Your task to perform on an android device: Find coffee shops on Maps Image 0: 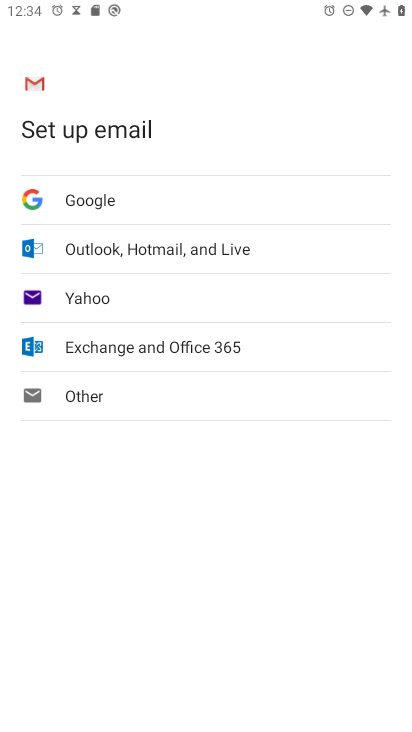
Step 0: press home button
Your task to perform on an android device: Find coffee shops on Maps Image 1: 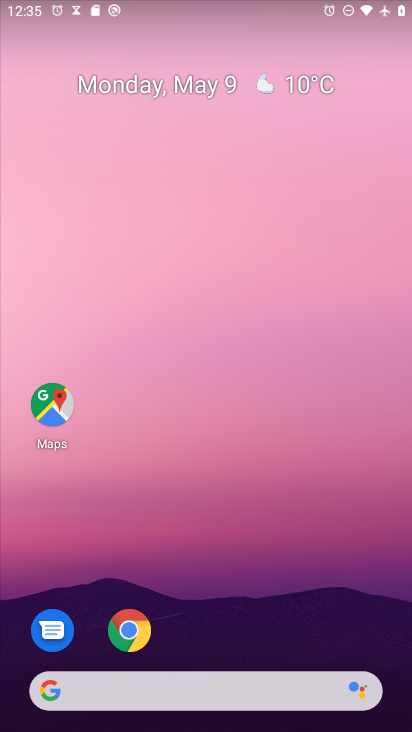
Step 1: drag from (176, 697) to (378, 156)
Your task to perform on an android device: Find coffee shops on Maps Image 2: 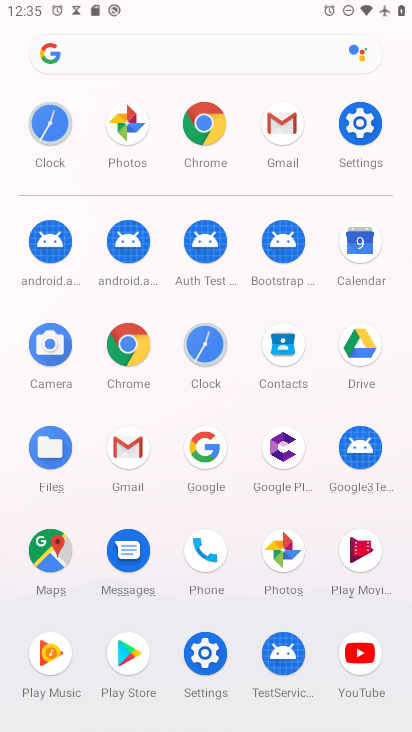
Step 2: click (48, 550)
Your task to perform on an android device: Find coffee shops on Maps Image 3: 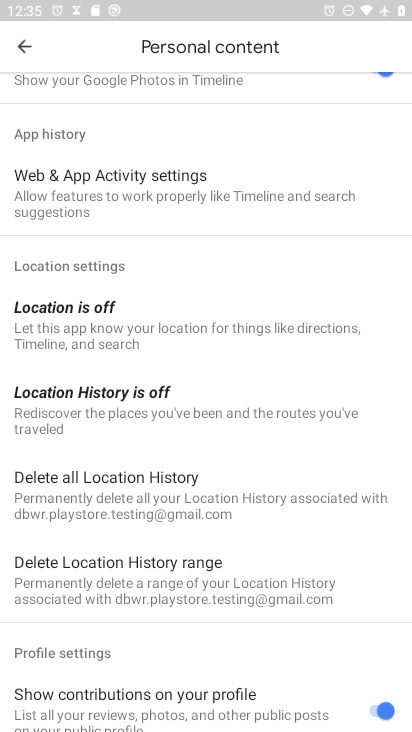
Step 3: click (29, 48)
Your task to perform on an android device: Find coffee shops on Maps Image 4: 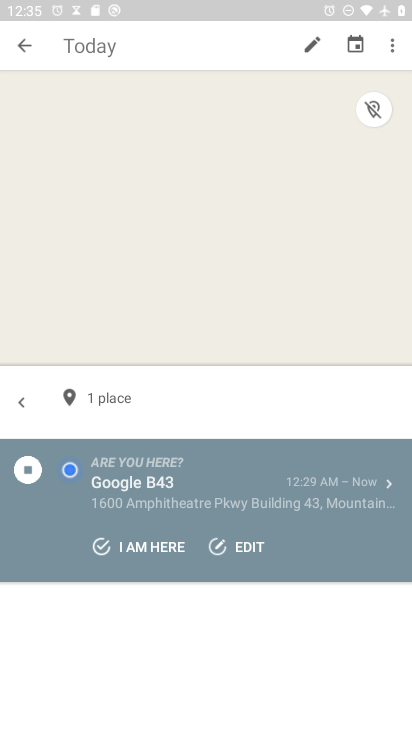
Step 4: click (29, 48)
Your task to perform on an android device: Find coffee shops on Maps Image 5: 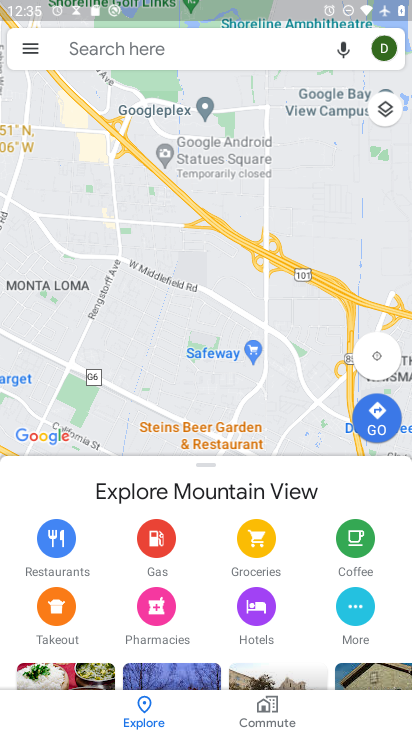
Step 5: click (147, 43)
Your task to perform on an android device: Find coffee shops on Maps Image 6: 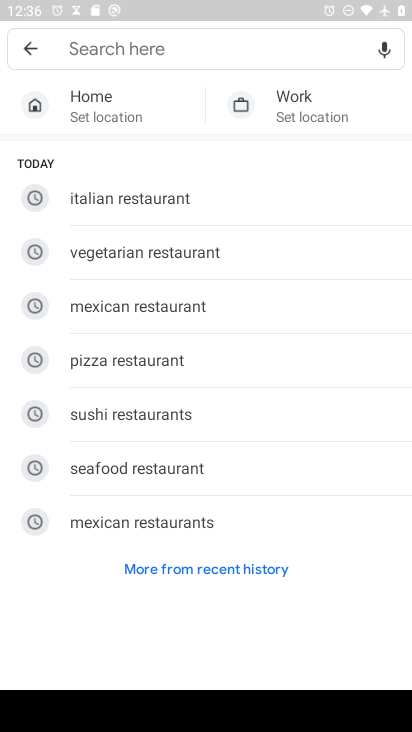
Step 6: type "coffee"
Your task to perform on an android device: Find coffee shops on Maps Image 7: 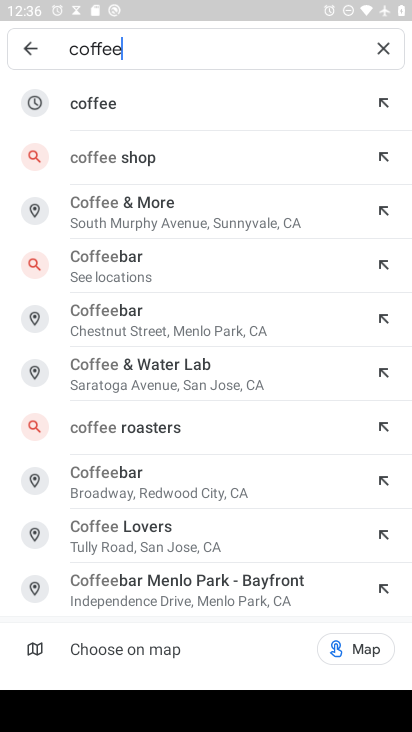
Step 7: click (152, 102)
Your task to perform on an android device: Find coffee shops on Maps Image 8: 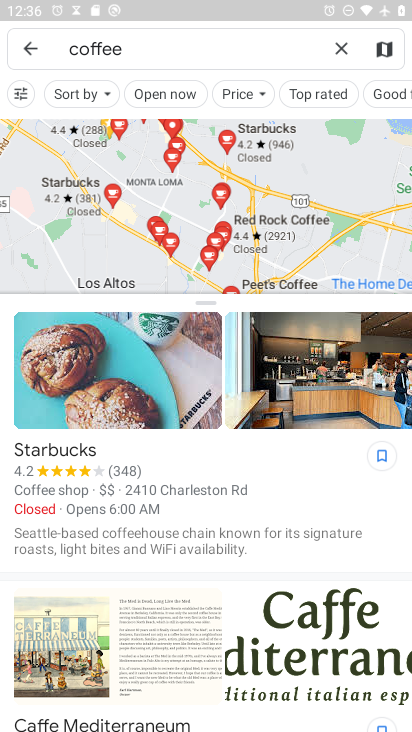
Step 8: task complete